Your task to perform on an android device: Go to internet settings Image 0: 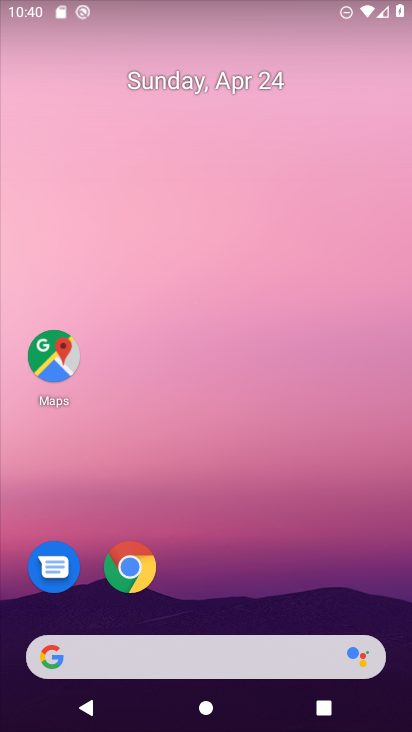
Step 0: drag from (210, 591) to (162, 52)
Your task to perform on an android device: Go to internet settings Image 1: 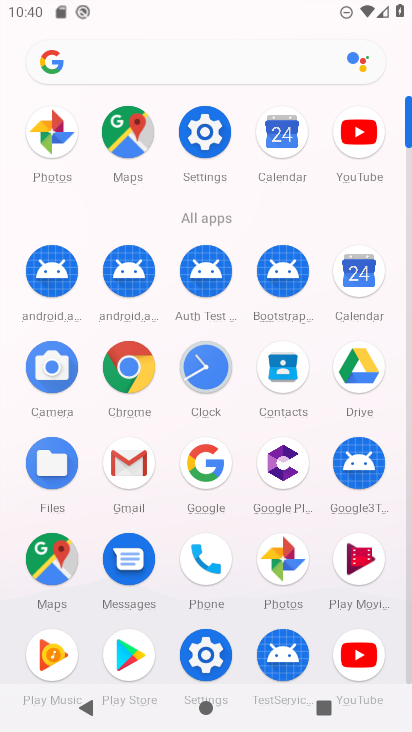
Step 1: click (203, 652)
Your task to perform on an android device: Go to internet settings Image 2: 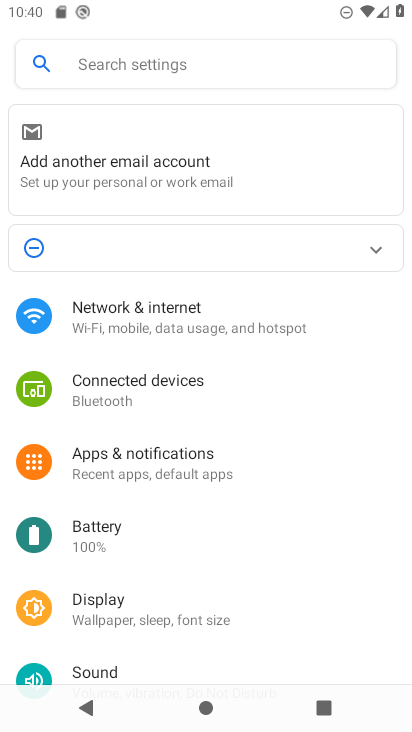
Step 2: click (147, 310)
Your task to perform on an android device: Go to internet settings Image 3: 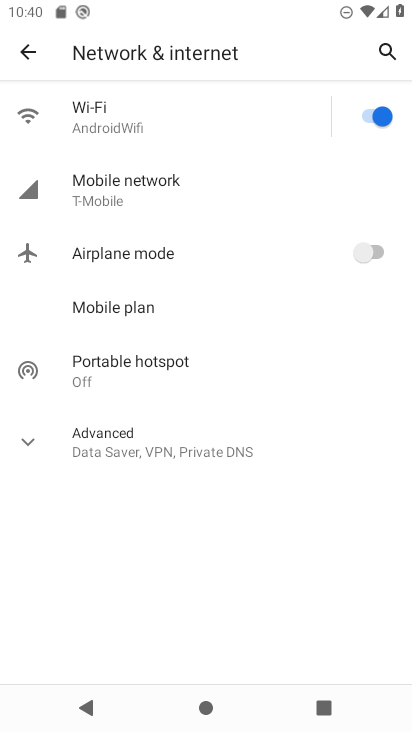
Step 3: task complete